Your task to perform on an android device: open app "Grab" (install if not already installed), go to login, and select forgot password Image 0: 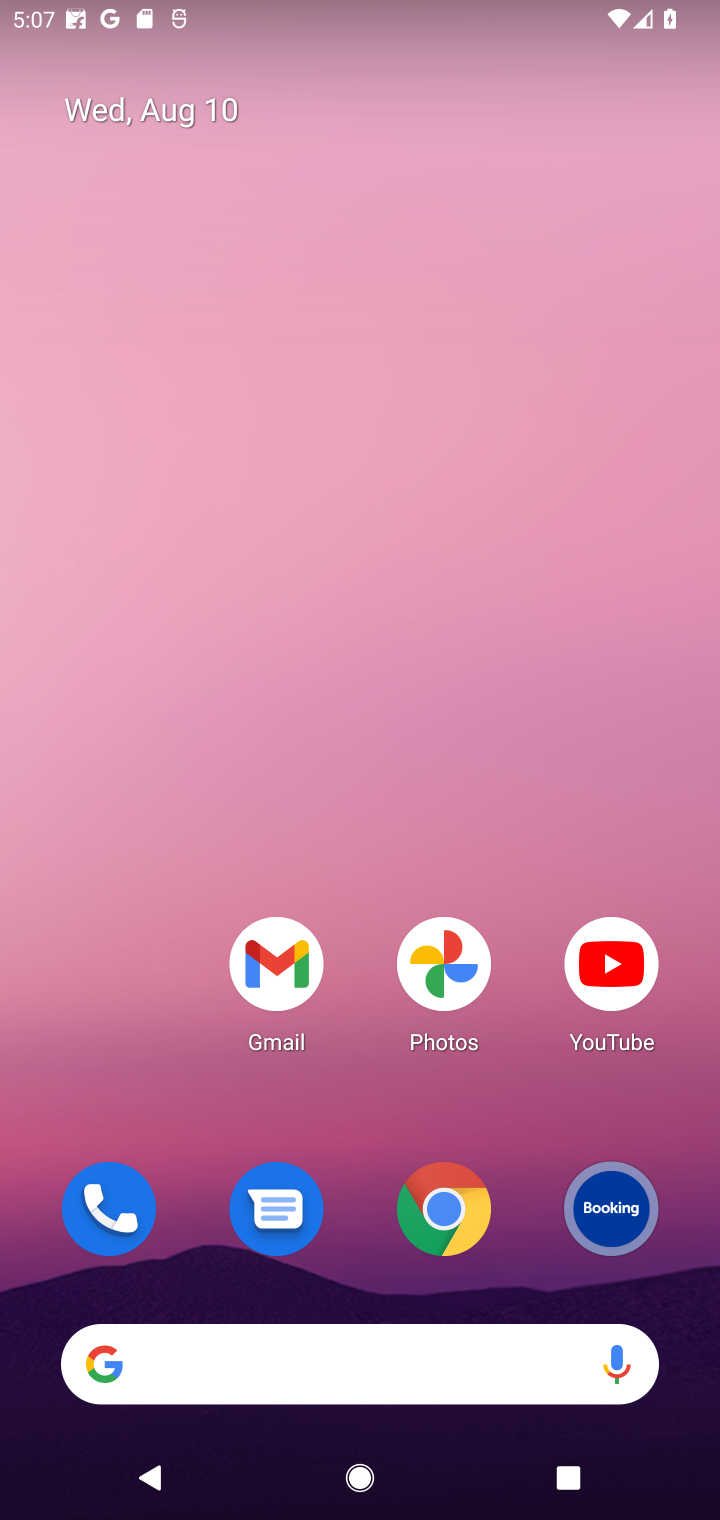
Step 0: drag from (369, 1288) to (73, 0)
Your task to perform on an android device: open app "Grab" (install if not already installed), go to login, and select forgot password Image 1: 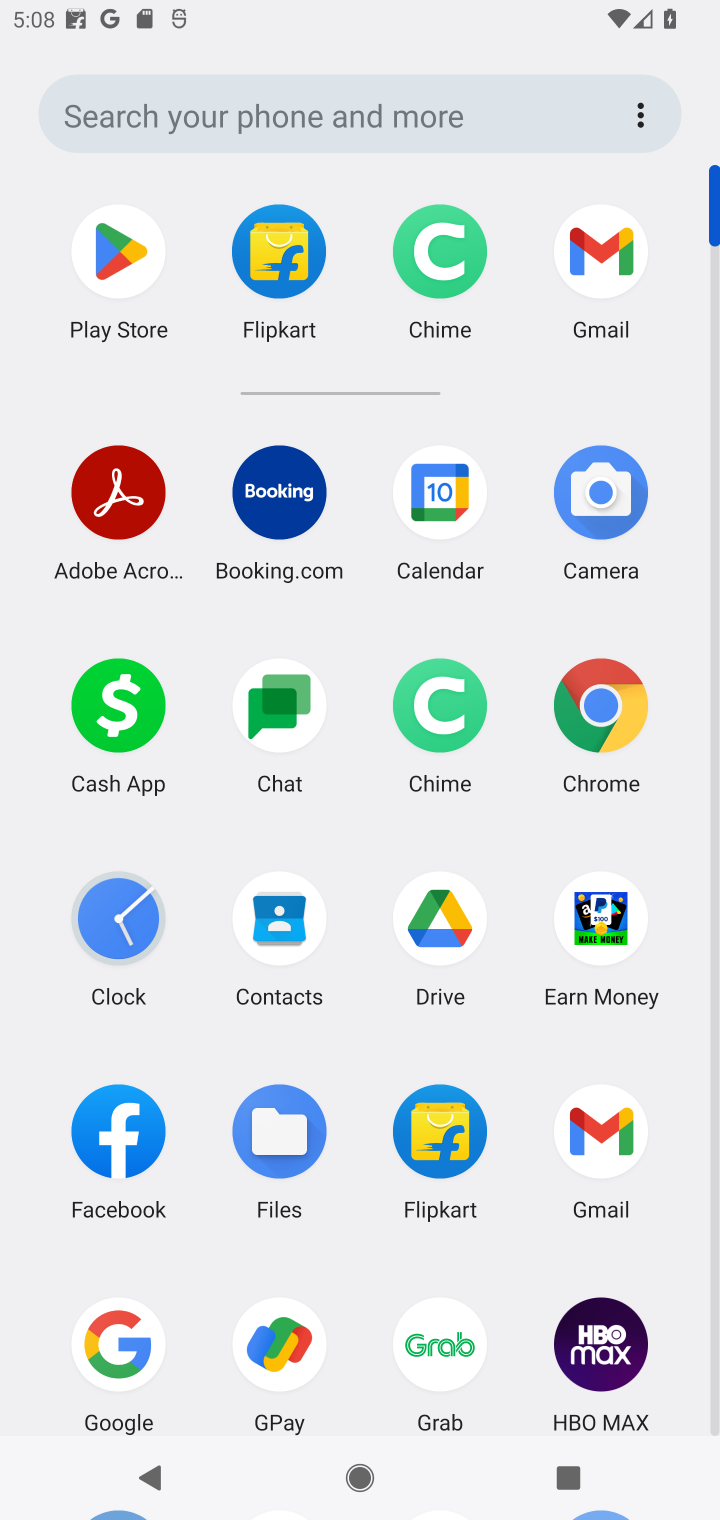
Step 1: click (99, 271)
Your task to perform on an android device: open app "Grab" (install if not already installed), go to login, and select forgot password Image 2: 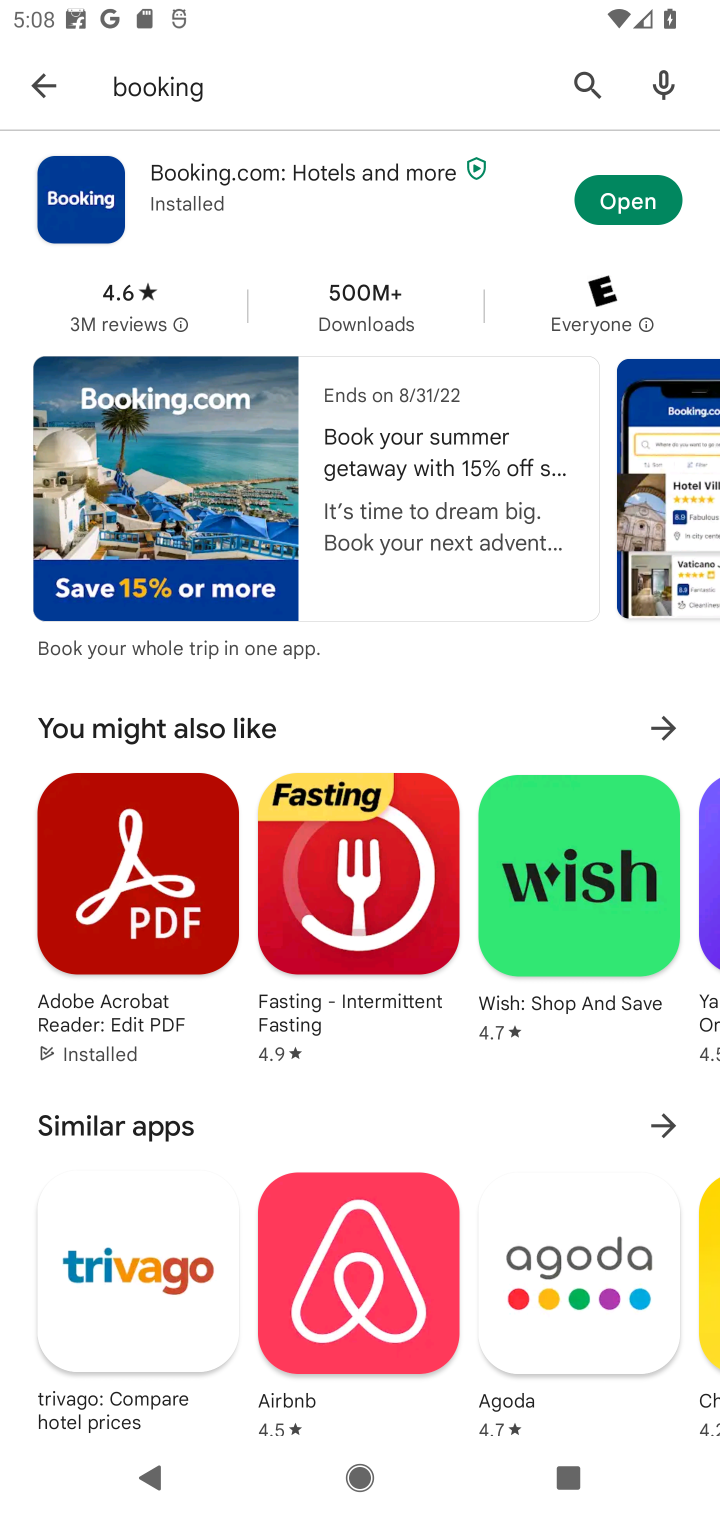
Step 2: click (561, 87)
Your task to perform on an android device: open app "Grab" (install if not already installed), go to login, and select forgot password Image 3: 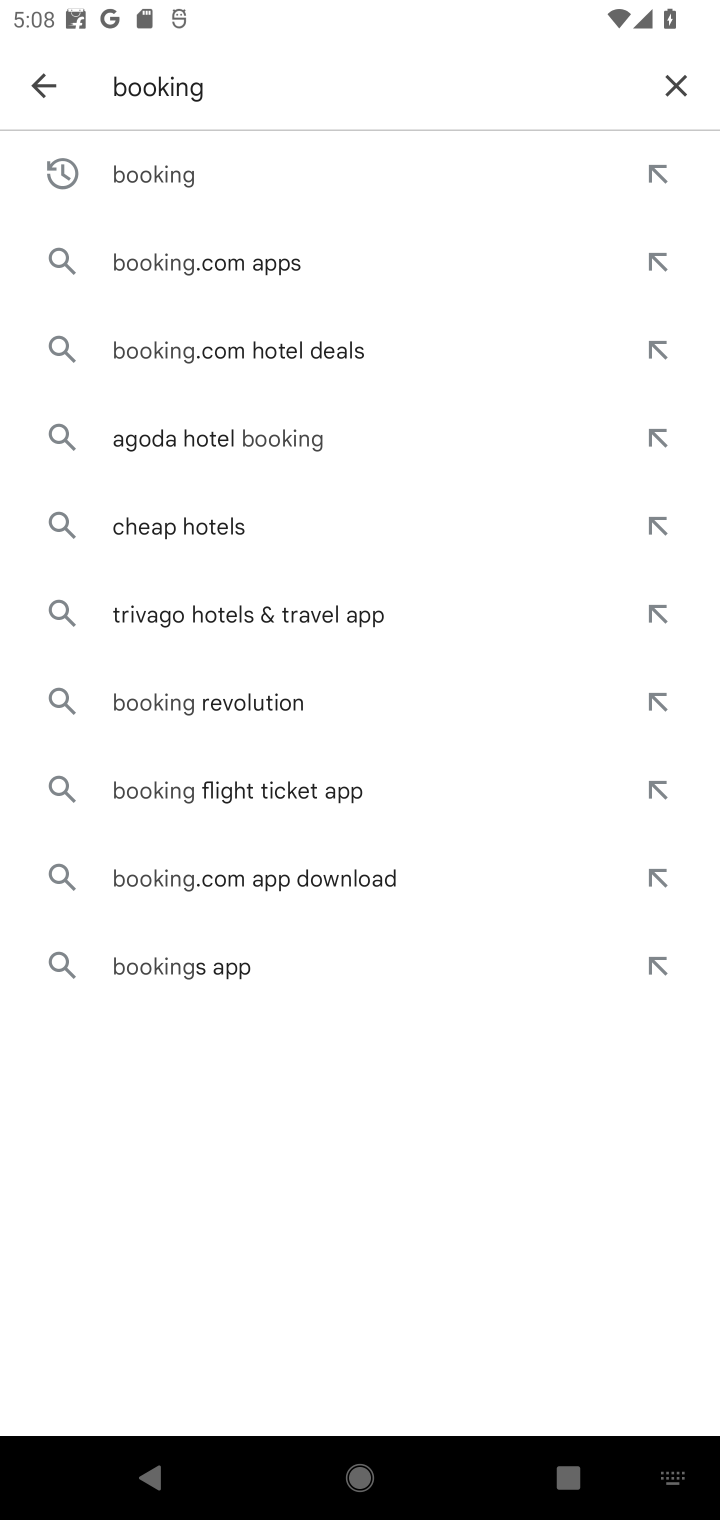
Step 3: click (690, 87)
Your task to perform on an android device: open app "Grab" (install if not already installed), go to login, and select forgot password Image 4: 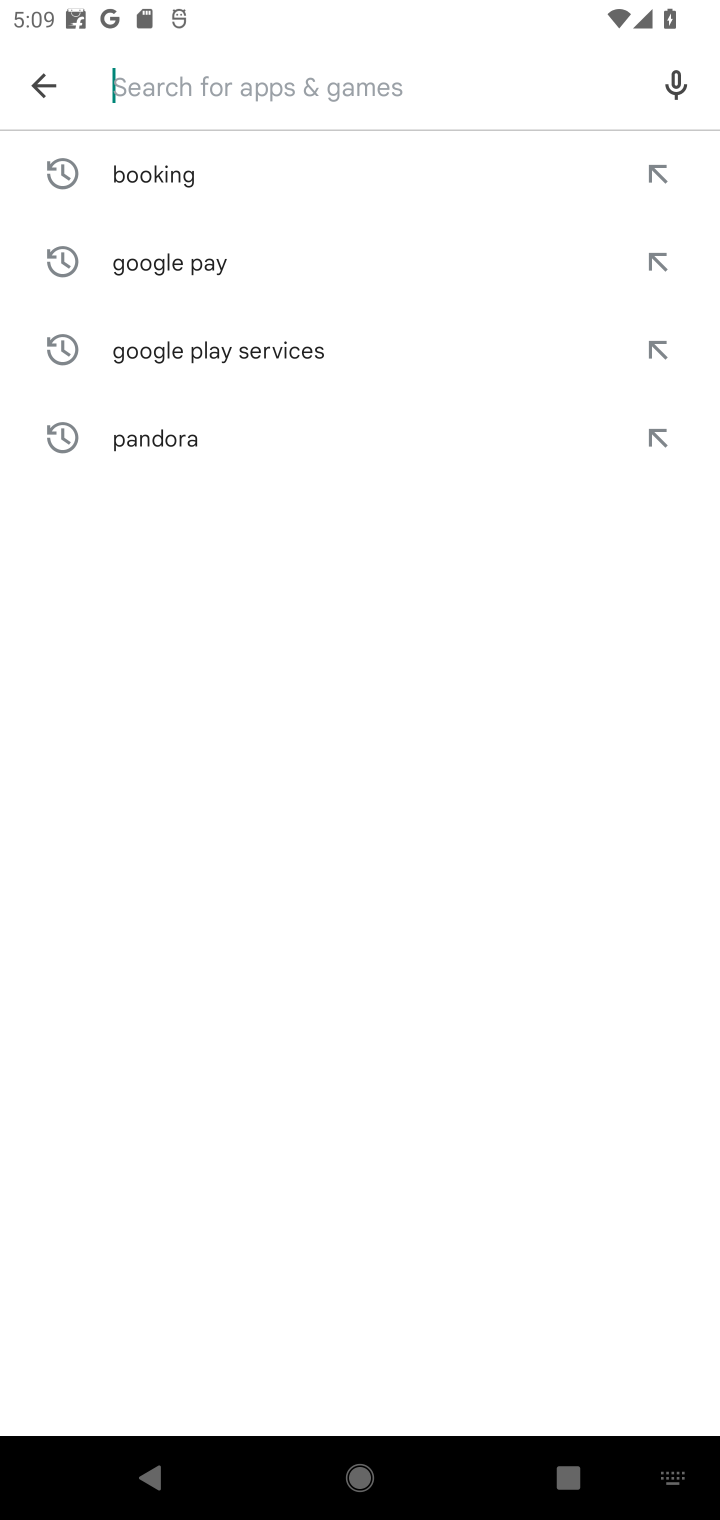
Step 4: type "grab"
Your task to perform on an android device: open app "Grab" (install if not already installed), go to login, and select forgot password Image 5: 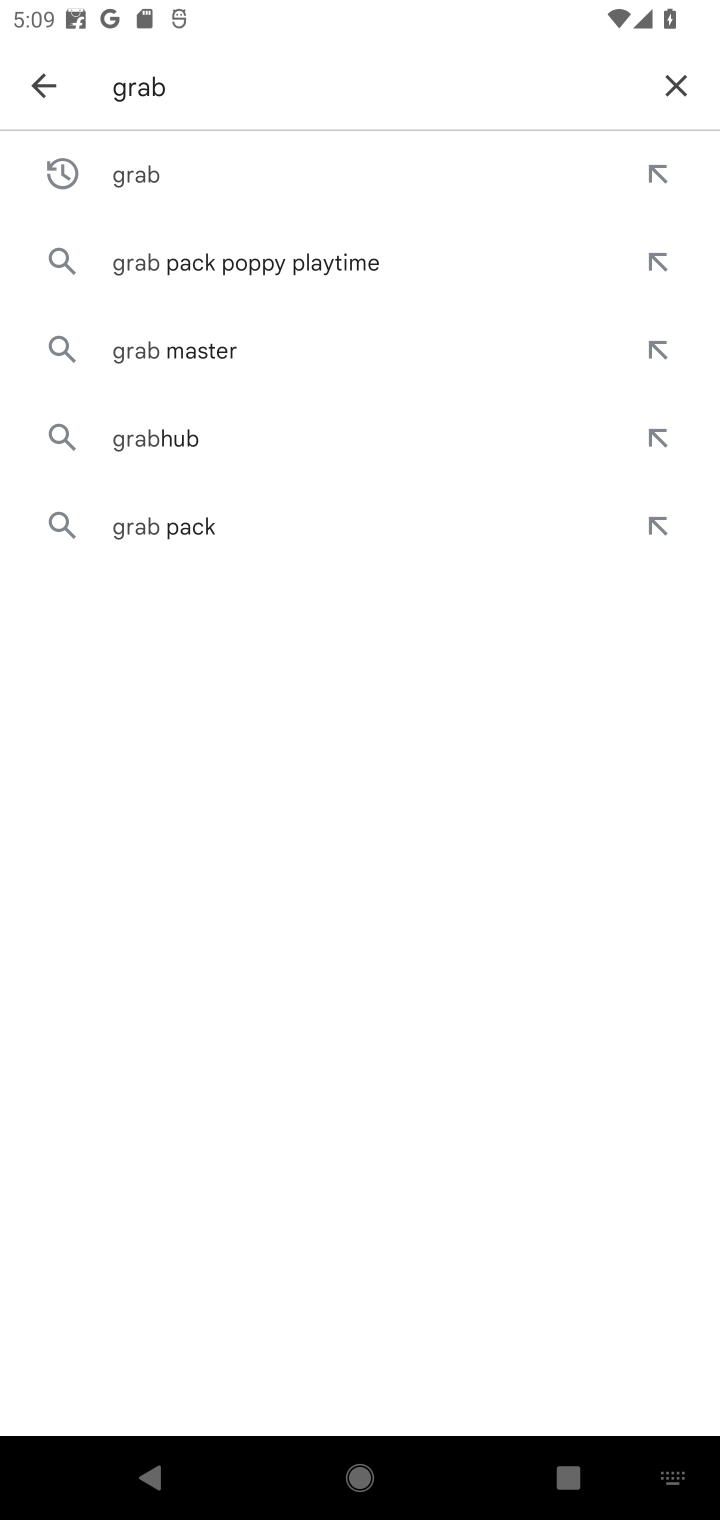
Step 5: click (187, 193)
Your task to perform on an android device: open app "Grab" (install if not already installed), go to login, and select forgot password Image 6: 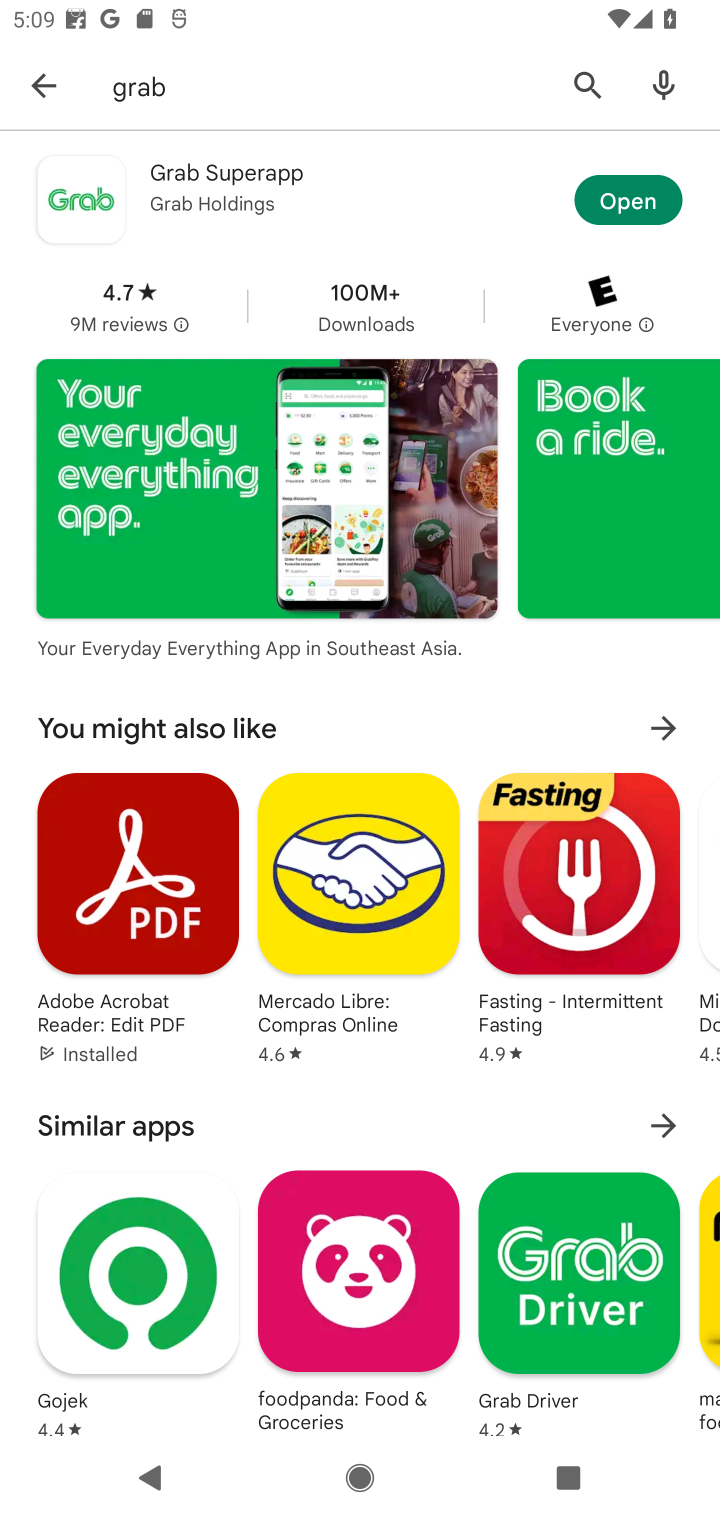
Step 6: click (575, 202)
Your task to perform on an android device: open app "Grab" (install if not already installed), go to login, and select forgot password Image 7: 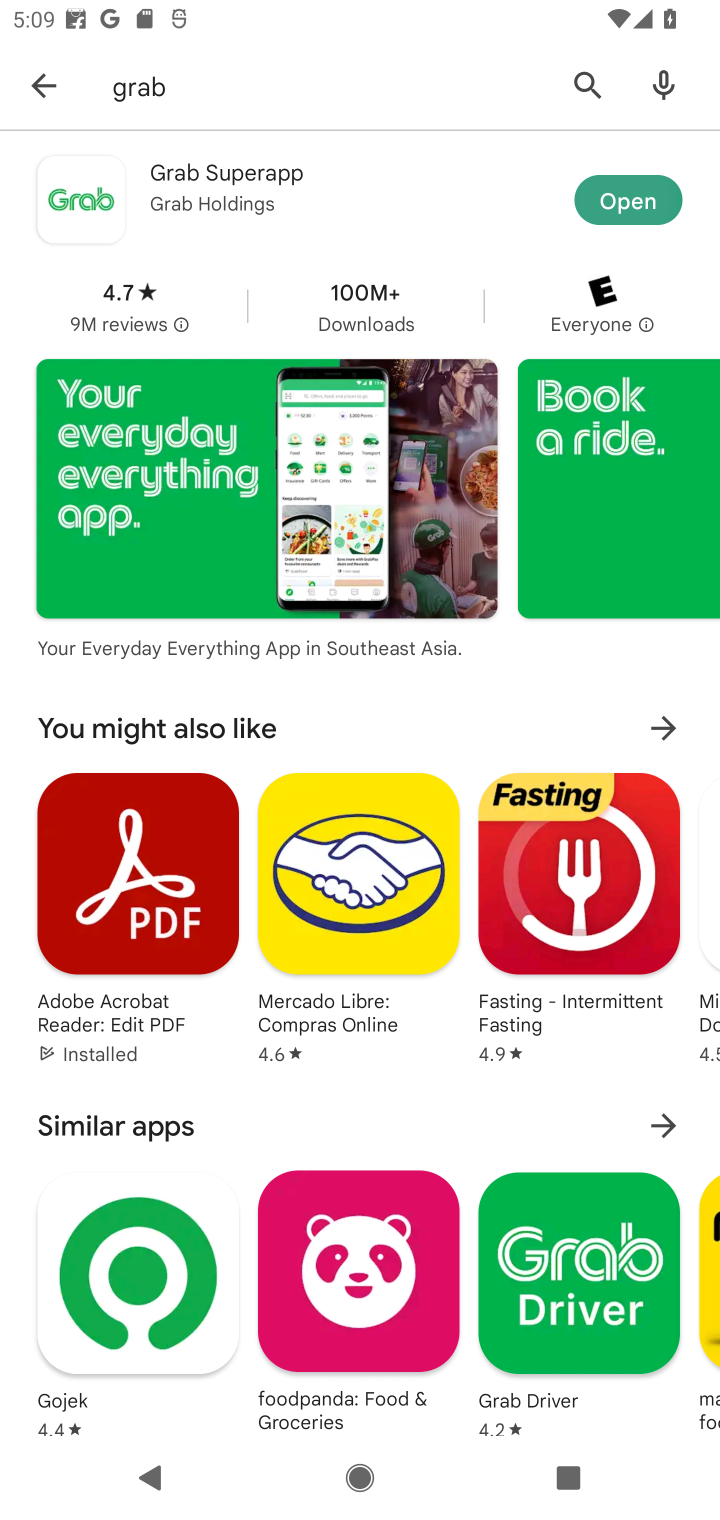
Step 7: task complete